Your task to perform on an android device: Go to calendar. Show me events next week Image 0: 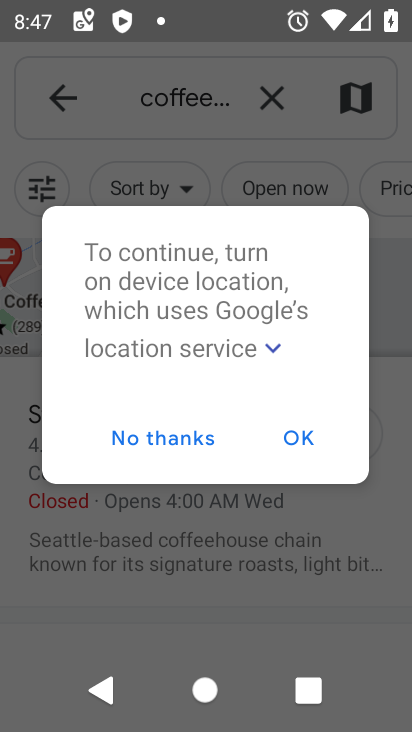
Step 0: press home button
Your task to perform on an android device: Go to calendar. Show me events next week Image 1: 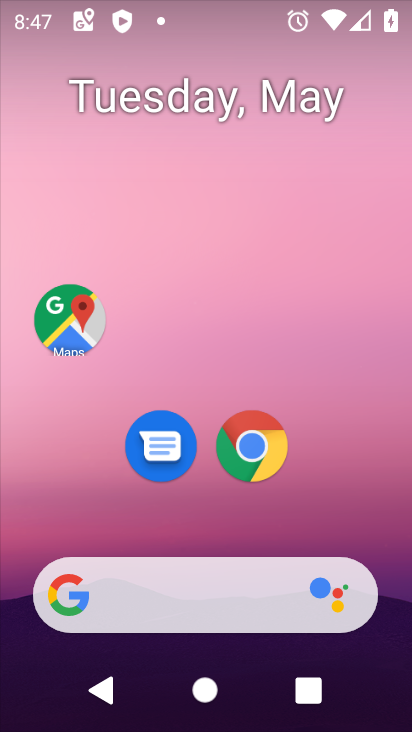
Step 1: drag from (349, 550) to (393, 17)
Your task to perform on an android device: Go to calendar. Show me events next week Image 2: 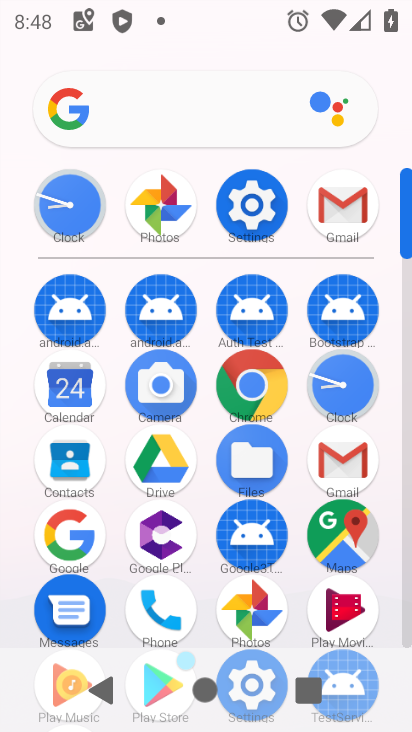
Step 2: click (87, 388)
Your task to perform on an android device: Go to calendar. Show me events next week Image 3: 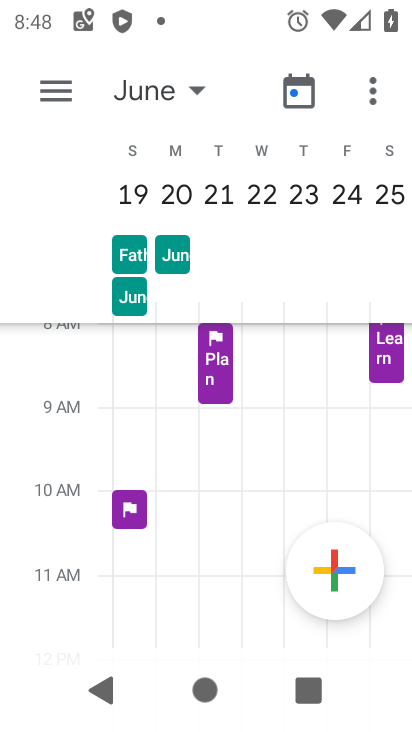
Step 3: click (288, 90)
Your task to perform on an android device: Go to calendar. Show me events next week Image 4: 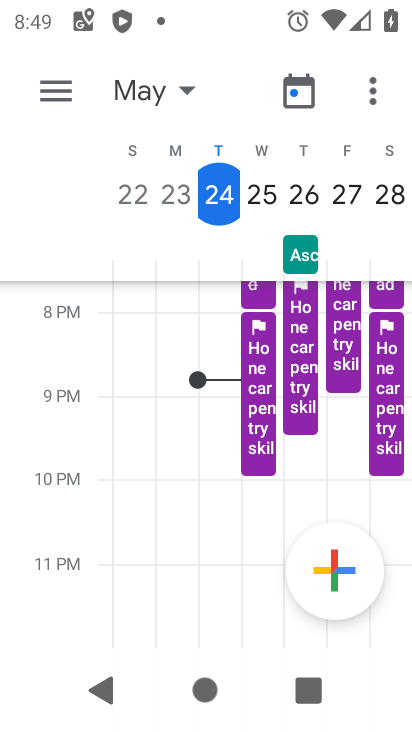
Step 4: drag from (312, 450) to (0, 119)
Your task to perform on an android device: Go to calendar. Show me events next week Image 5: 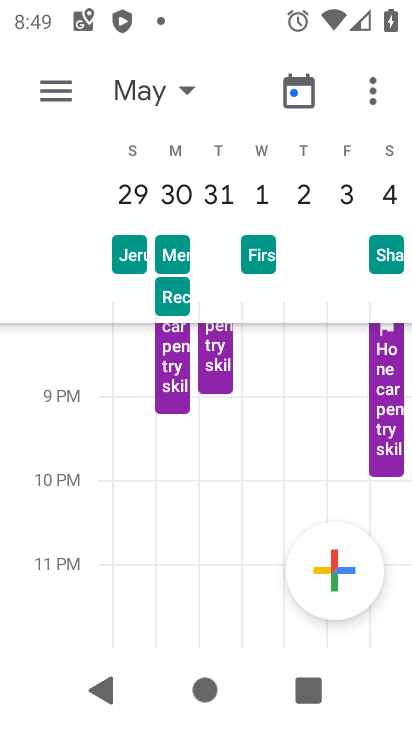
Step 5: click (55, 92)
Your task to perform on an android device: Go to calendar. Show me events next week Image 6: 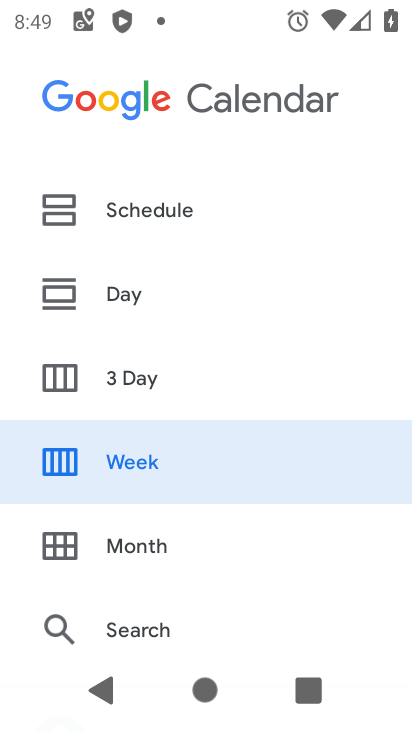
Step 6: drag from (127, 567) to (128, 139)
Your task to perform on an android device: Go to calendar. Show me events next week Image 7: 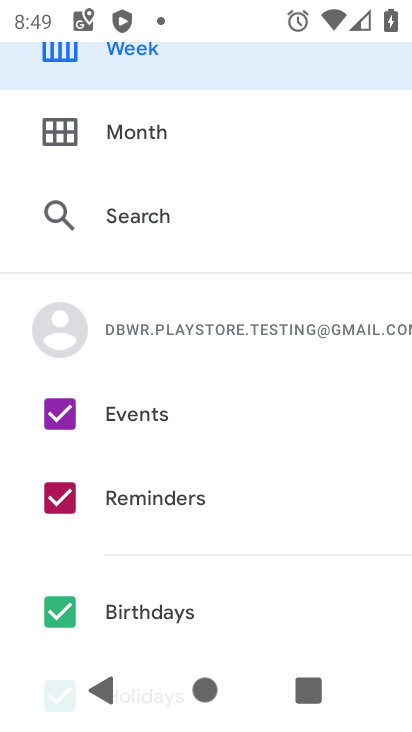
Step 7: click (69, 503)
Your task to perform on an android device: Go to calendar. Show me events next week Image 8: 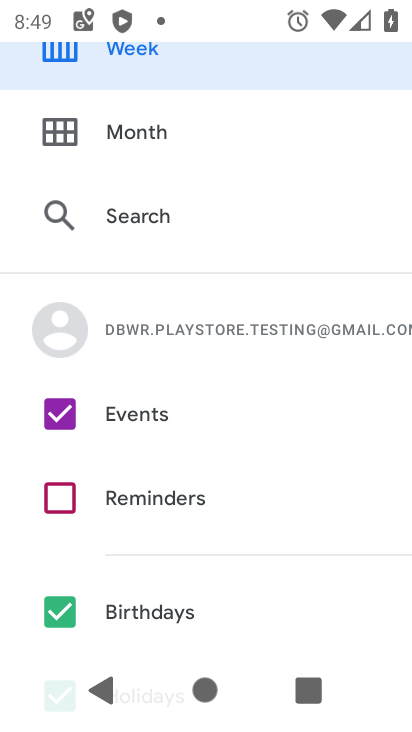
Step 8: click (49, 602)
Your task to perform on an android device: Go to calendar. Show me events next week Image 9: 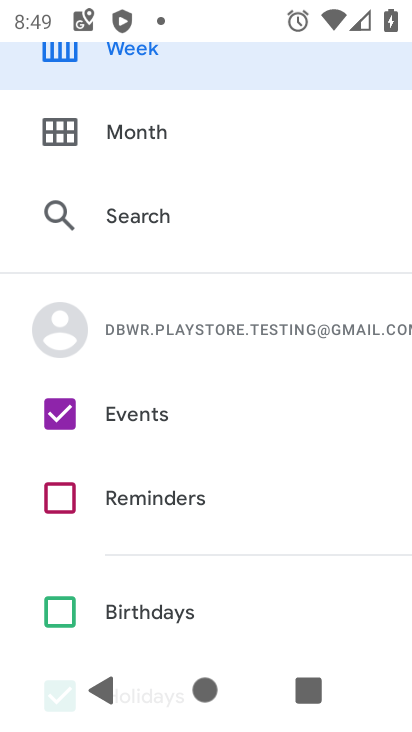
Step 9: drag from (175, 595) to (176, 371)
Your task to perform on an android device: Go to calendar. Show me events next week Image 10: 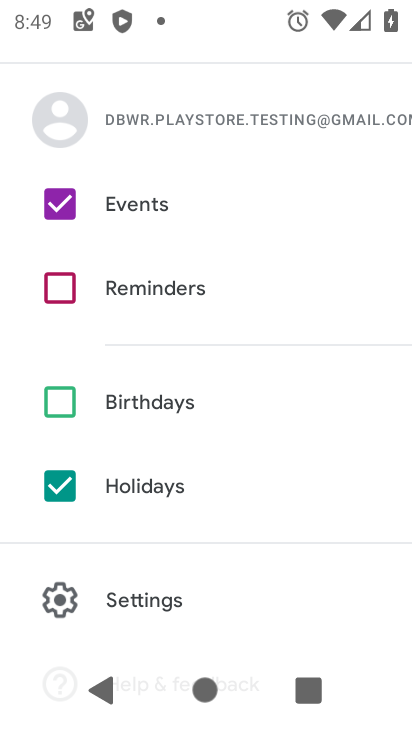
Step 10: click (72, 474)
Your task to perform on an android device: Go to calendar. Show me events next week Image 11: 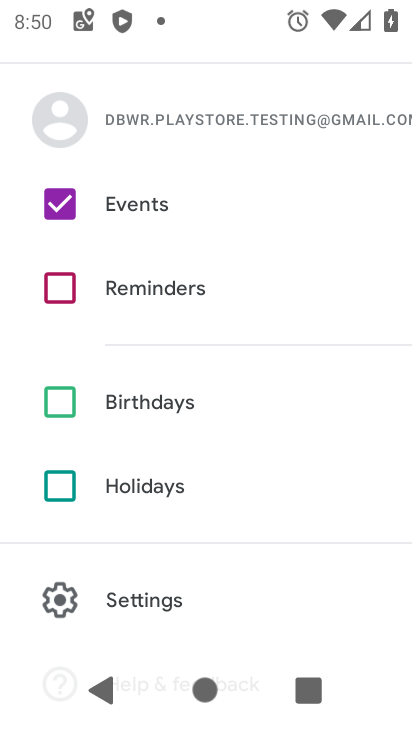
Step 11: drag from (277, 371) to (265, 717)
Your task to perform on an android device: Go to calendar. Show me events next week Image 12: 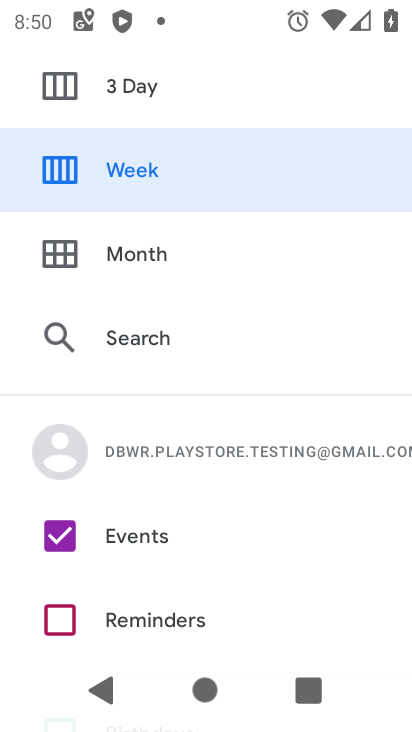
Step 12: click (123, 184)
Your task to perform on an android device: Go to calendar. Show me events next week Image 13: 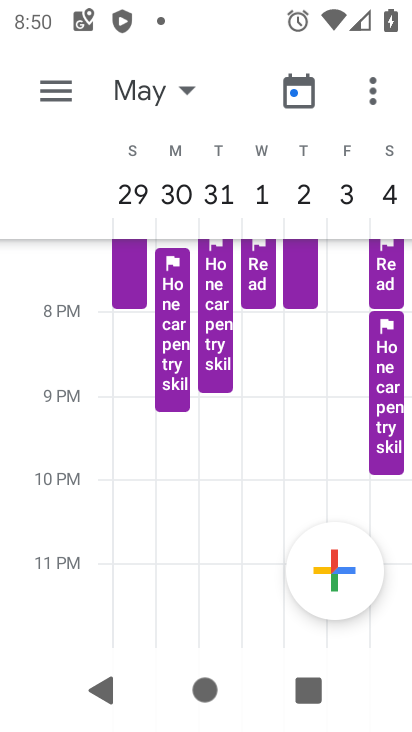
Step 13: task complete